Your task to perform on an android device: Open the stopwatch Image 0: 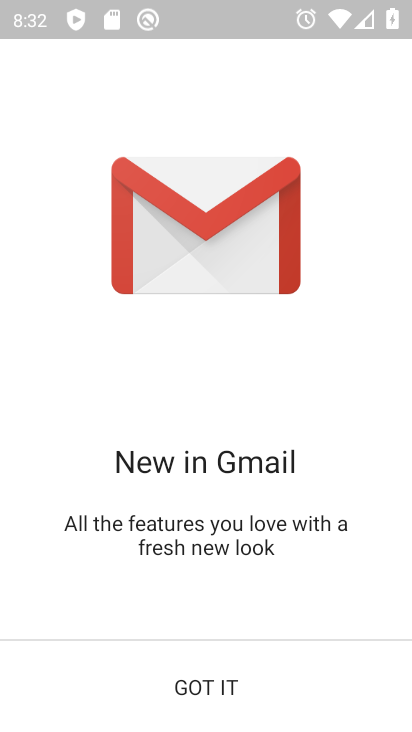
Step 0: press home button
Your task to perform on an android device: Open the stopwatch Image 1: 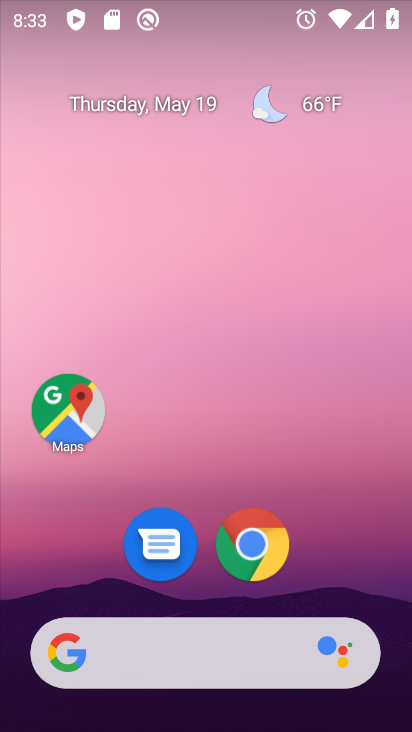
Step 1: drag from (393, 639) to (233, 27)
Your task to perform on an android device: Open the stopwatch Image 2: 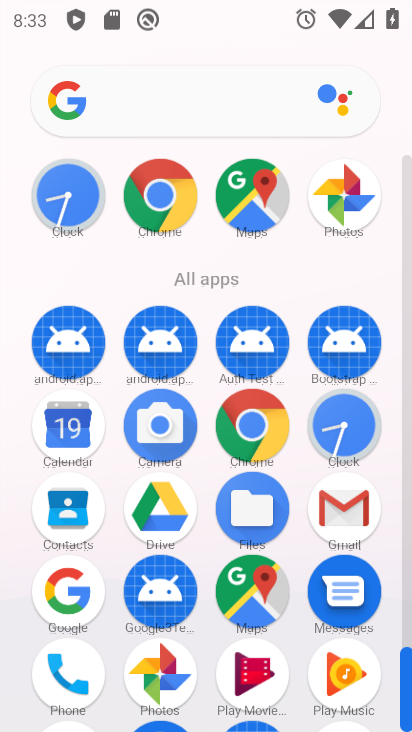
Step 2: click (68, 187)
Your task to perform on an android device: Open the stopwatch Image 3: 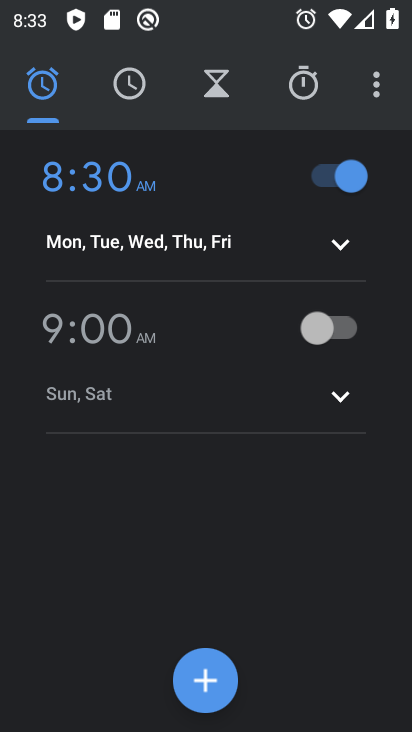
Step 3: click (319, 80)
Your task to perform on an android device: Open the stopwatch Image 4: 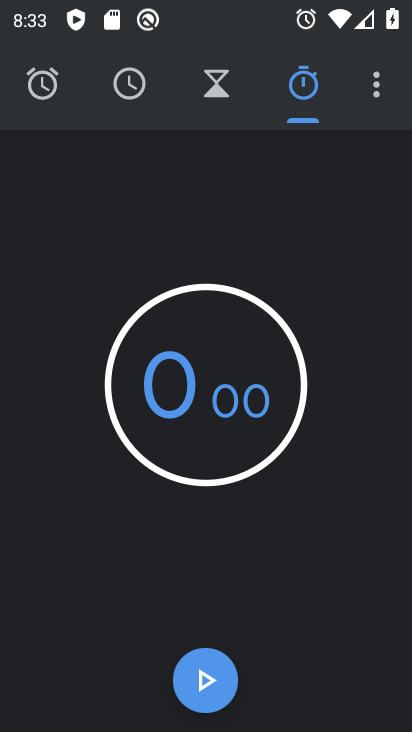
Step 4: task complete